Your task to perform on an android device: change the clock display to digital Image 0: 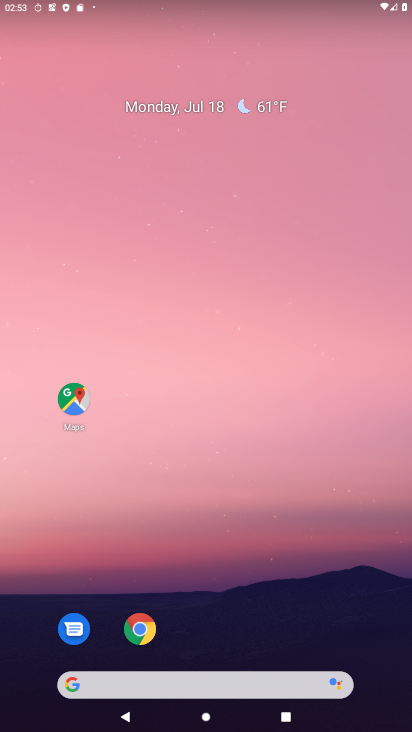
Step 0: drag from (195, 691) to (264, 101)
Your task to perform on an android device: change the clock display to digital Image 1: 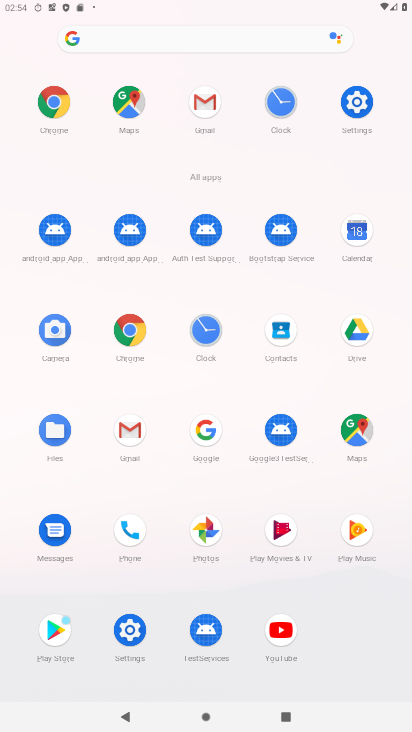
Step 1: click (281, 103)
Your task to perform on an android device: change the clock display to digital Image 2: 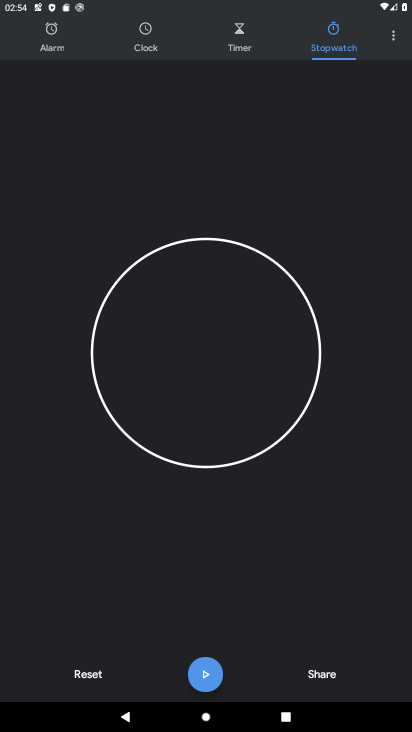
Step 2: click (395, 38)
Your task to perform on an android device: change the clock display to digital Image 3: 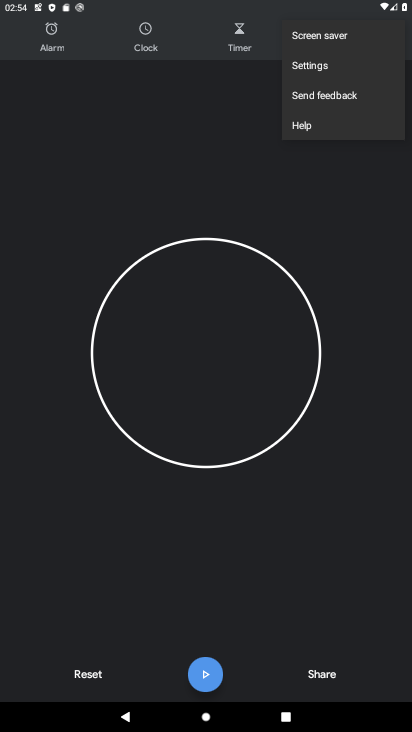
Step 3: click (318, 61)
Your task to perform on an android device: change the clock display to digital Image 4: 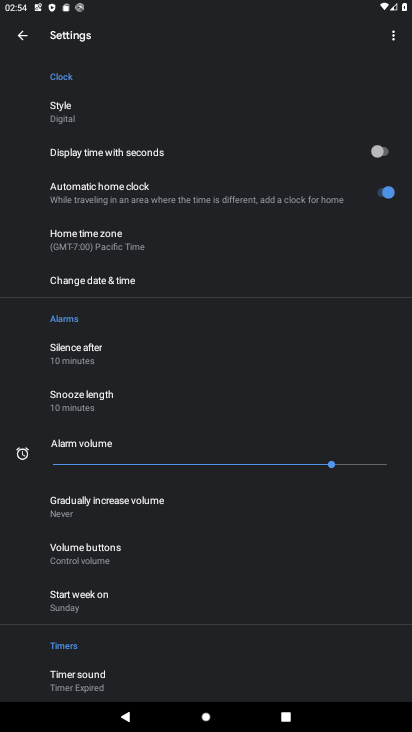
Step 4: click (102, 110)
Your task to perform on an android device: change the clock display to digital Image 5: 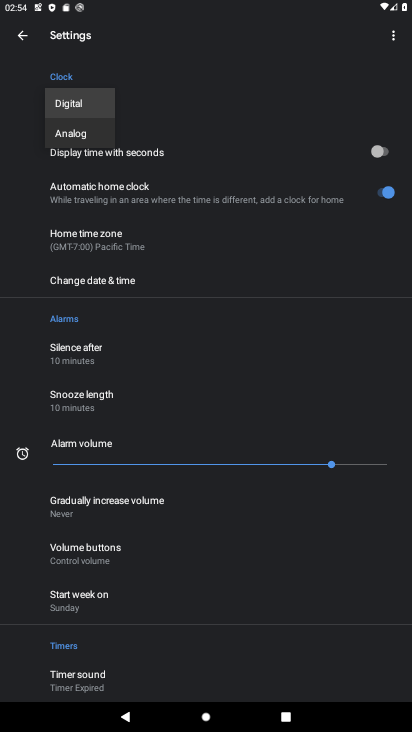
Step 5: click (82, 105)
Your task to perform on an android device: change the clock display to digital Image 6: 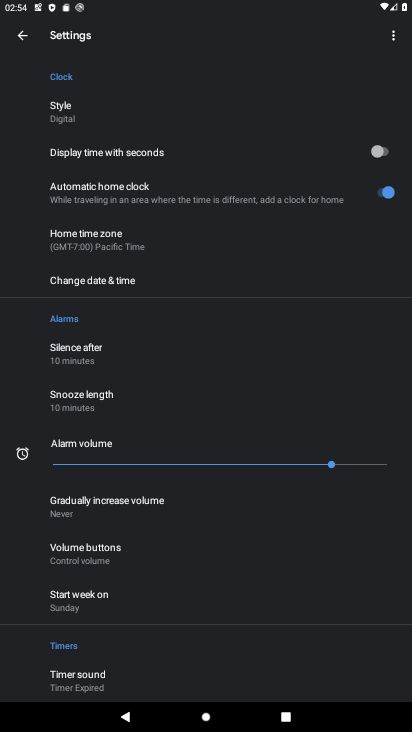
Step 6: task complete